Your task to perform on an android device: Turn on the flashlight Image 0: 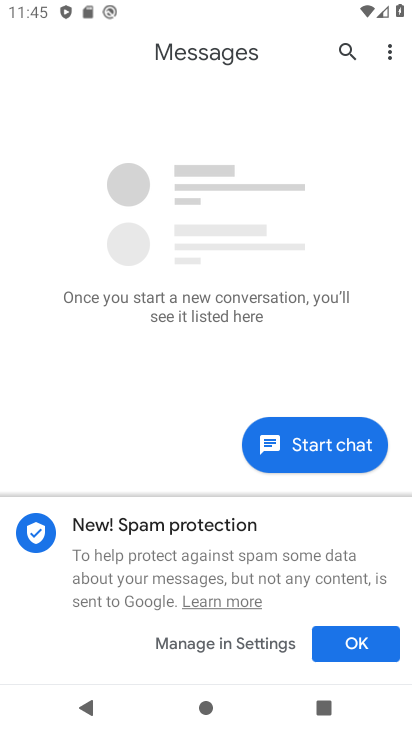
Step 0: press home button
Your task to perform on an android device: Turn on the flashlight Image 1: 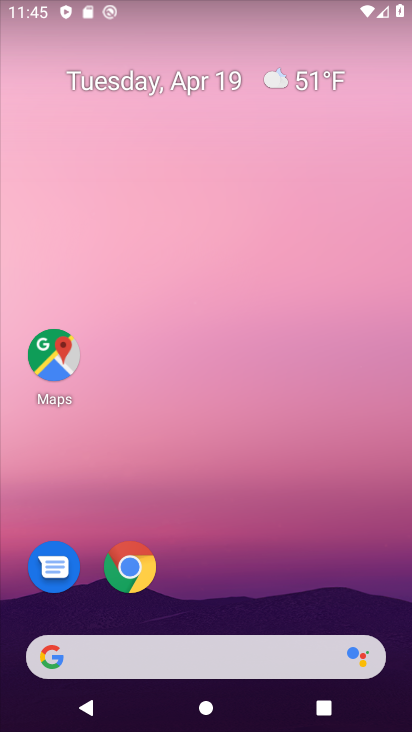
Step 1: drag from (201, 593) to (257, 89)
Your task to perform on an android device: Turn on the flashlight Image 2: 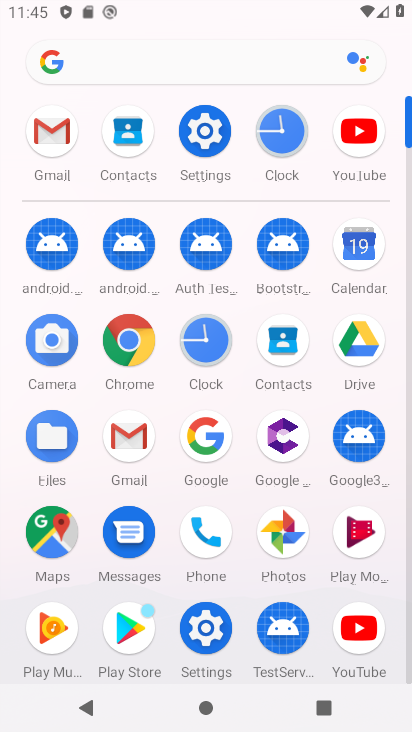
Step 2: click (209, 628)
Your task to perform on an android device: Turn on the flashlight Image 3: 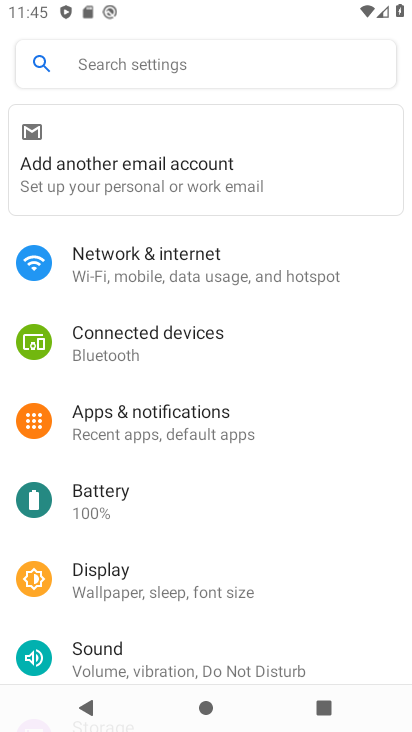
Step 3: click (185, 59)
Your task to perform on an android device: Turn on the flashlight Image 4: 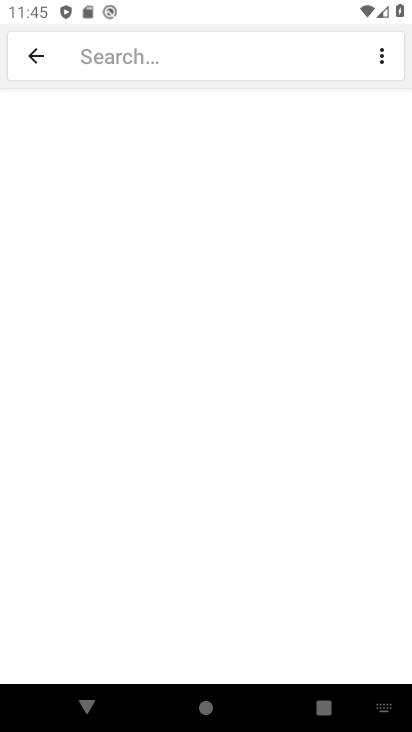
Step 4: type "flashlight"
Your task to perform on an android device: Turn on the flashlight Image 5: 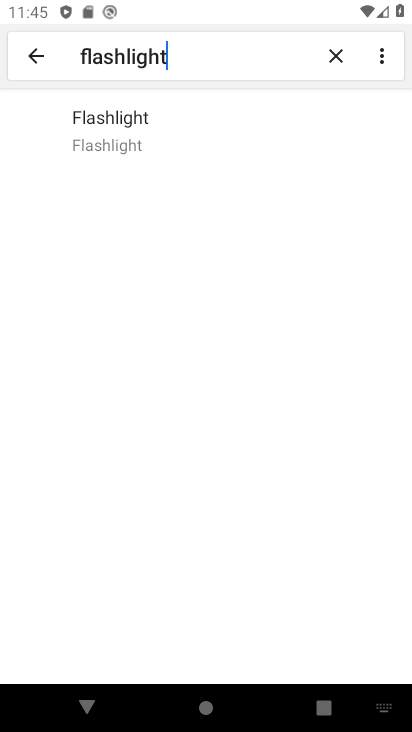
Step 5: click (146, 146)
Your task to perform on an android device: Turn on the flashlight Image 6: 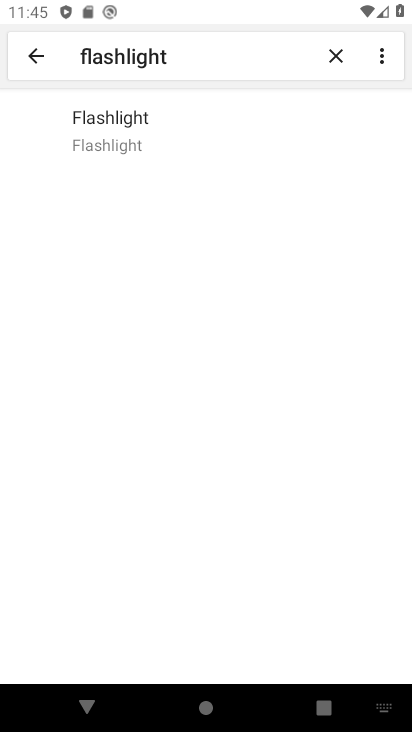
Step 6: click (146, 146)
Your task to perform on an android device: Turn on the flashlight Image 7: 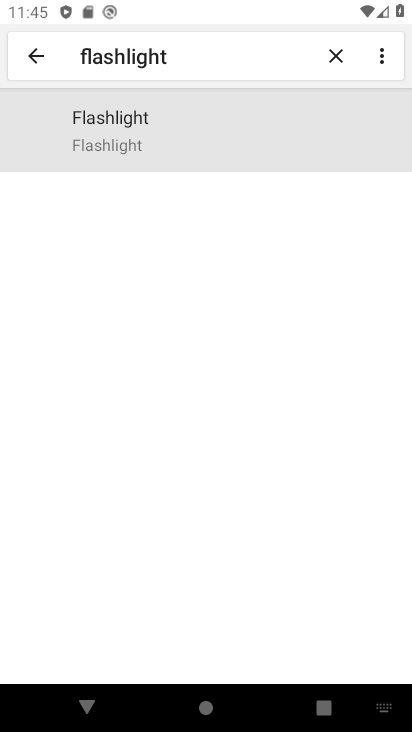
Step 7: click (329, 262)
Your task to perform on an android device: Turn on the flashlight Image 8: 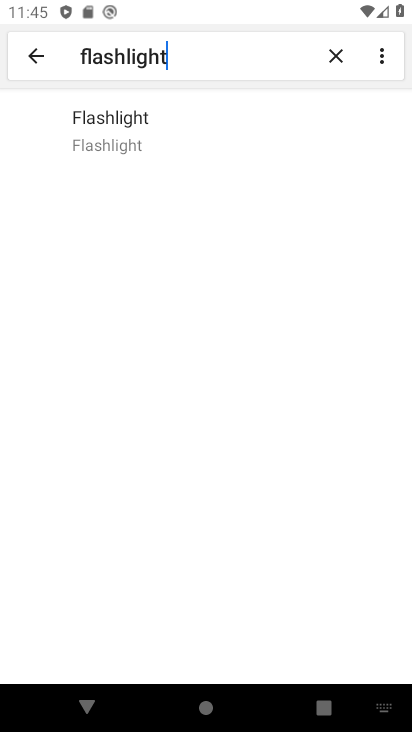
Step 8: task complete